Your task to perform on an android device: change timer sound Image 0: 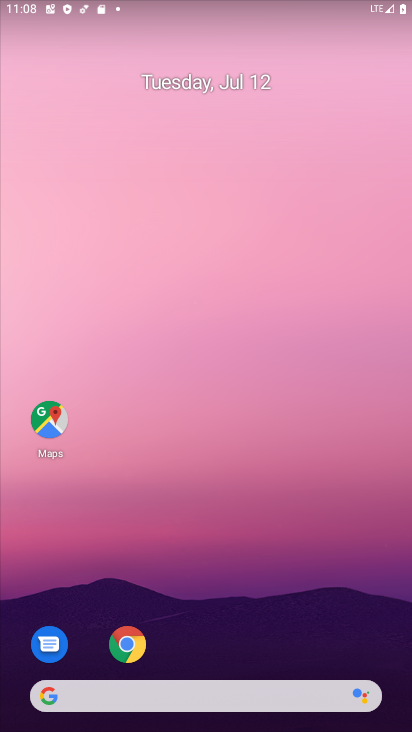
Step 0: drag from (165, 725) to (339, 26)
Your task to perform on an android device: change timer sound Image 1: 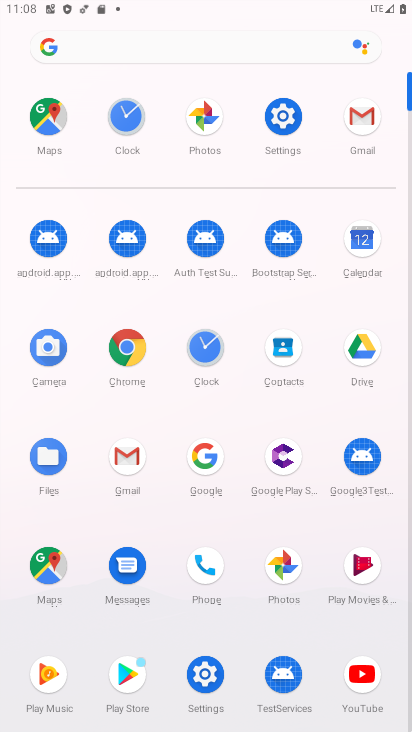
Step 1: click (213, 344)
Your task to perform on an android device: change timer sound Image 2: 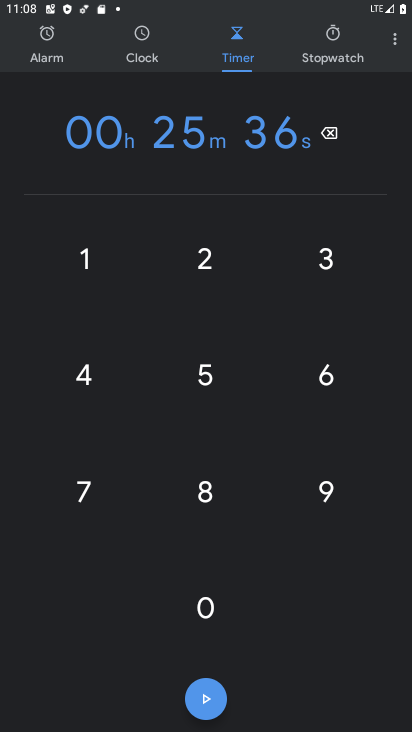
Step 2: click (396, 42)
Your task to perform on an android device: change timer sound Image 3: 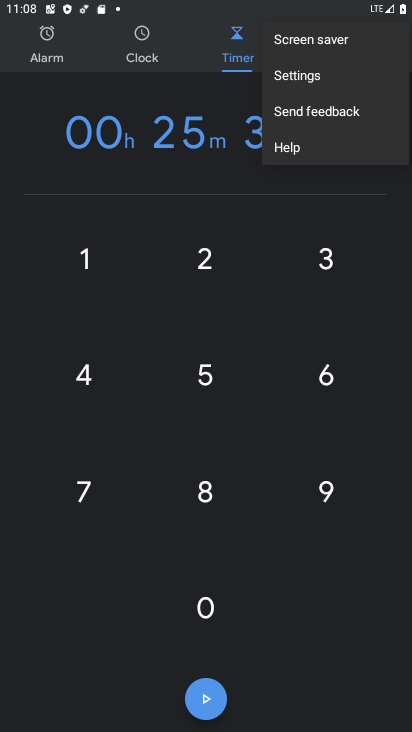
Step 3: click (311, 85)
Your task to perform on an android device: change timer sound Image 4: 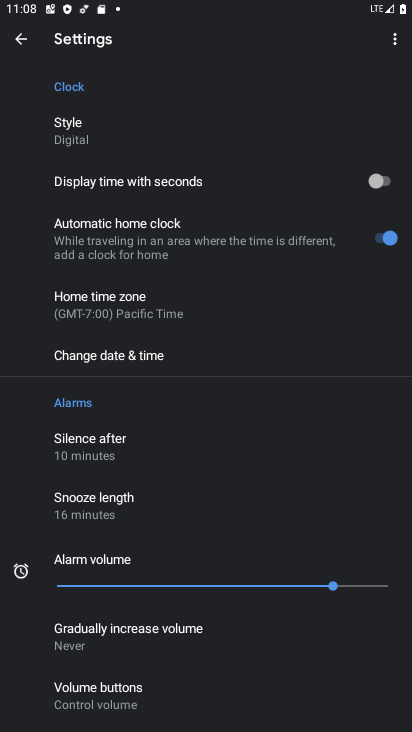
Step 4: drag from (206, 677) to (239, 156)
Your task to perform on an android device: change timer sound Image 5: 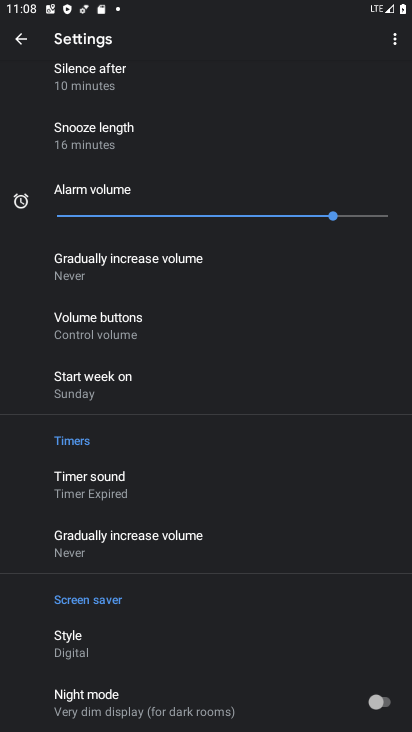
Step 5: click (124, 487)
Your task to perform on an android device: change timer sound Image 6: 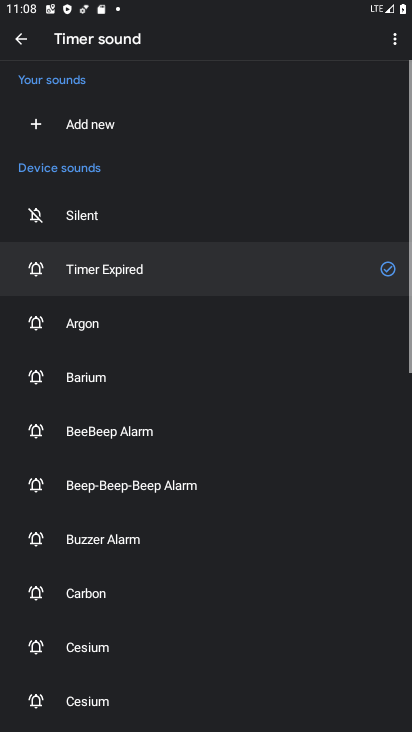
Step 6: click (116, 495)
Your task to perform on an android device: change timer sound Image 7: 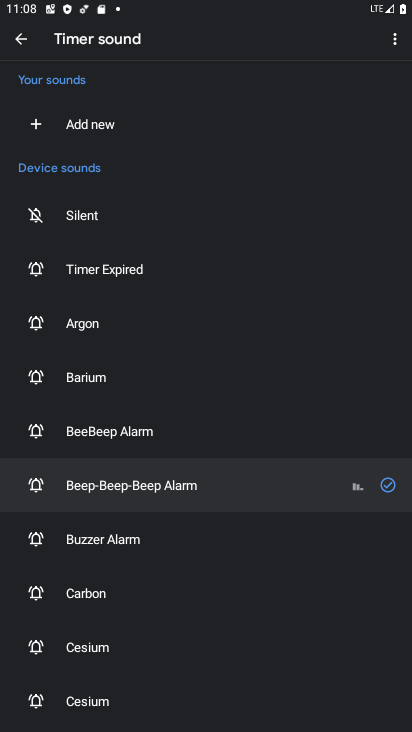
Step 7: task complete